Your task to perform on an android device: Open notification settings Image 0: 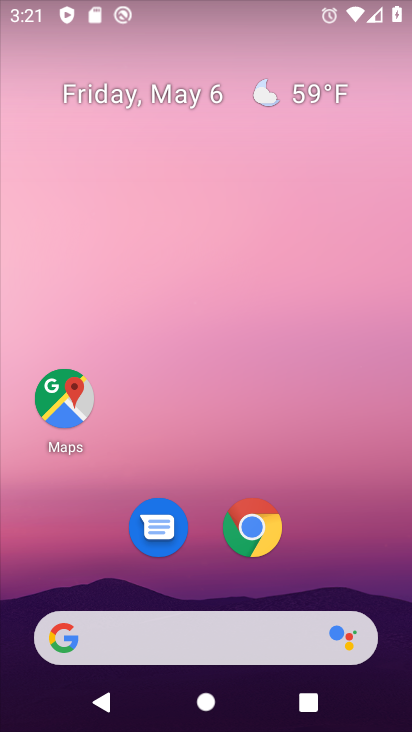
Step 0: drag from (317, 383) to (305, 11)
Your task to perform on an android device: Open notification settings Image 1: 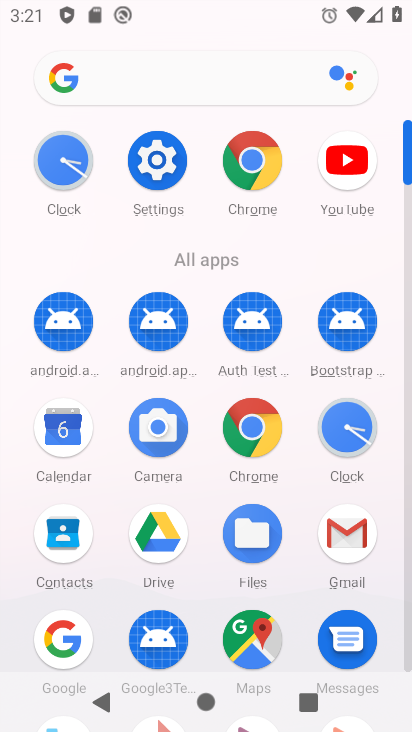
Step 1: click (156, 160)
Your task to perform on an android device: Open notification settings Image 2: 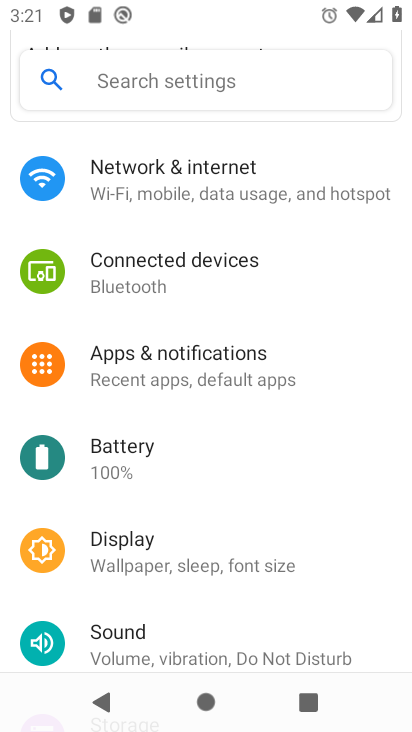
Step 2: click (136, 366)
Your task to perform on an android device: Open notification settings Image 3: 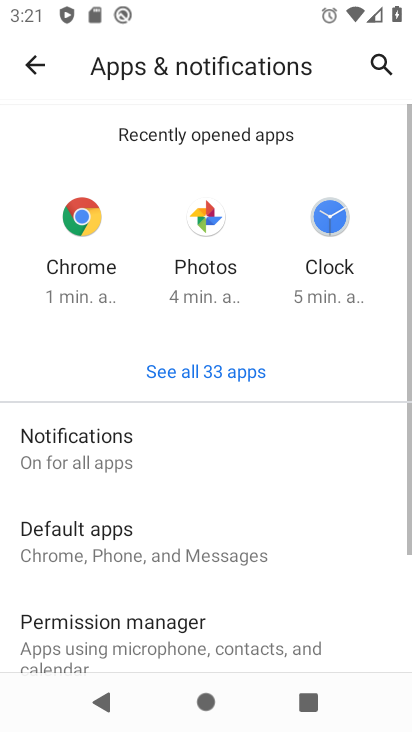
Step 3: click (101, 441)
Your task to perform on an android device: Open notification settings Image 4: 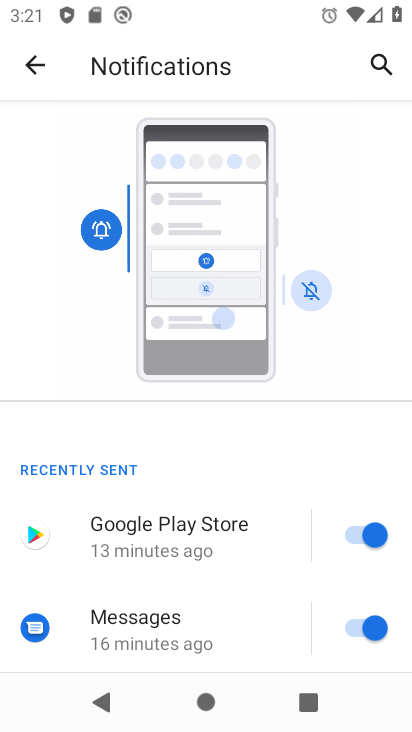
Step 4: task complete